Your task to perform on an android device: open sync settings in chrome Image 0: 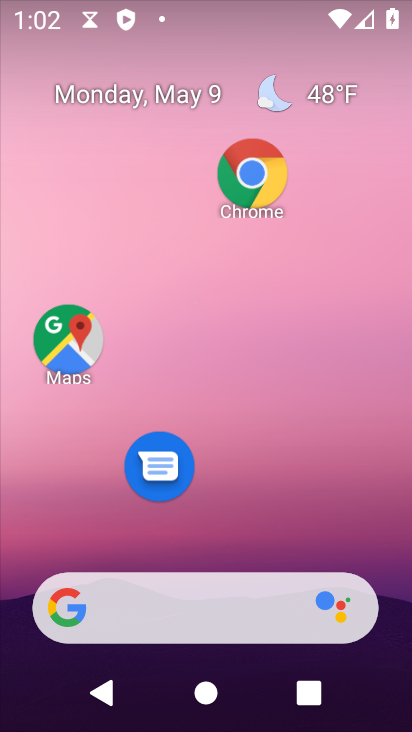
Step 0: click (247, 212)
Your task to perform on an android device: open sync settings in chrome Image 1: 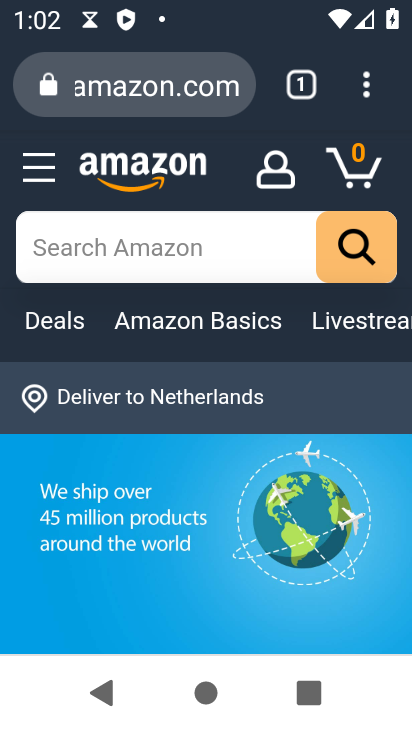
Step 1: click (360, 86)
Your task to perform on an android device: open sync settings in chrome Image 2: 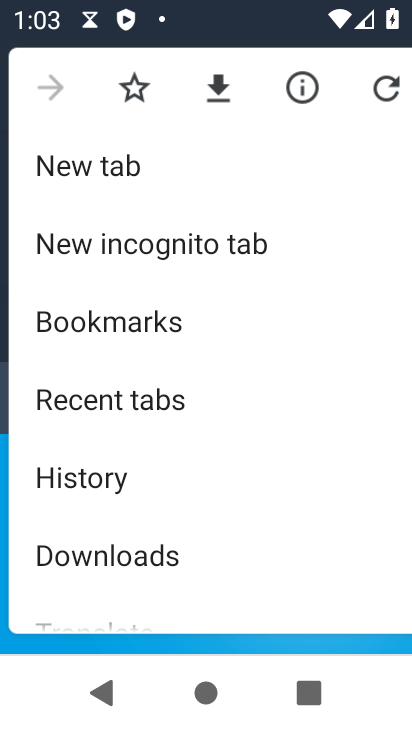
Step 2: drag from (148, 561) to (160, 300)
Your task to perform on an android device: open sync settings in chrome Image 3: 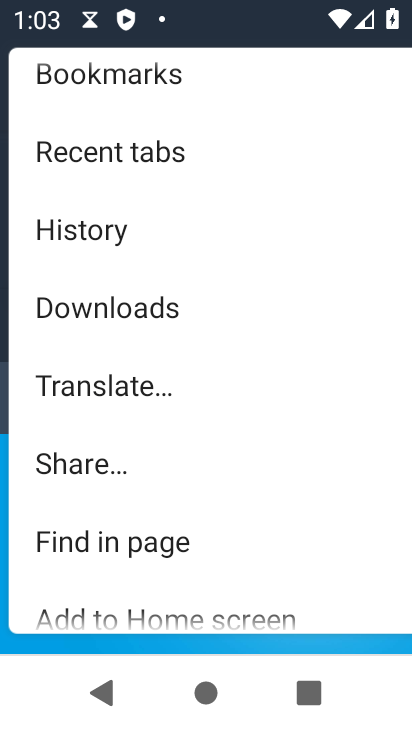
Step 3: drag from (130, 568) to (168, 280)
Your task to perform on an android device: open sync settings in chrome Image 4: 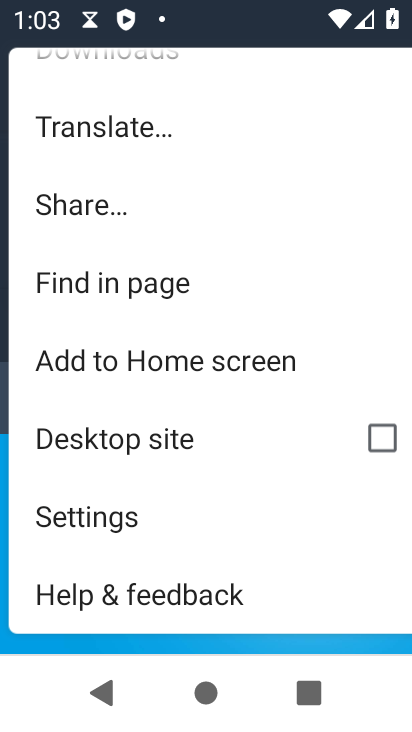
Step 4: click (96, 519)
Your task to perform on an android device: open sync settings in chrome Image 5: 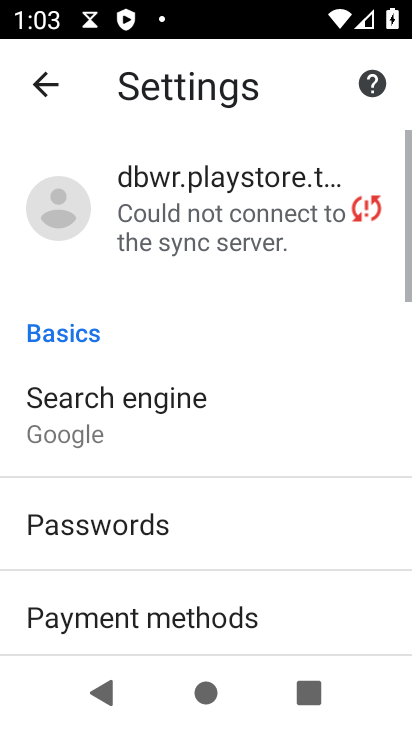
Step 5: click (158, 221)
Your task to perform on an android device: open sync settings in chrome Image 6: 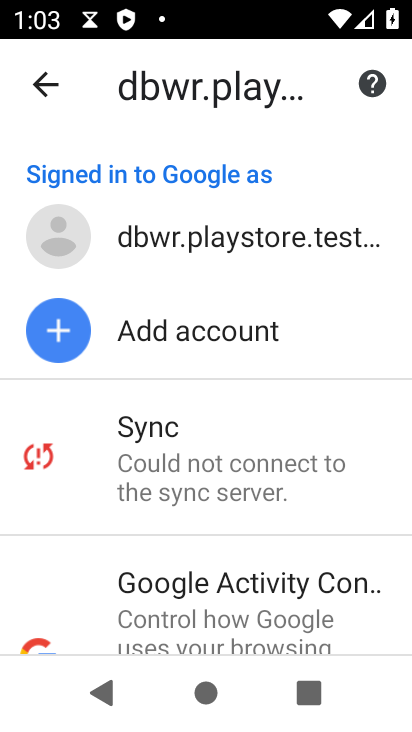
Step 6: click (156, 403)
Your task to perform on an android device: open sync settings in chrome Image 7: 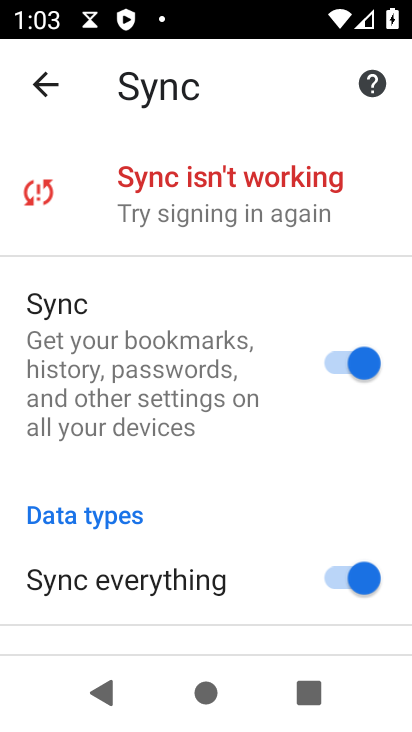
Step 7: drag from (158, 541) to (166, 239)
Your task to perform on an android device: open sync settings in chrome Image 8: 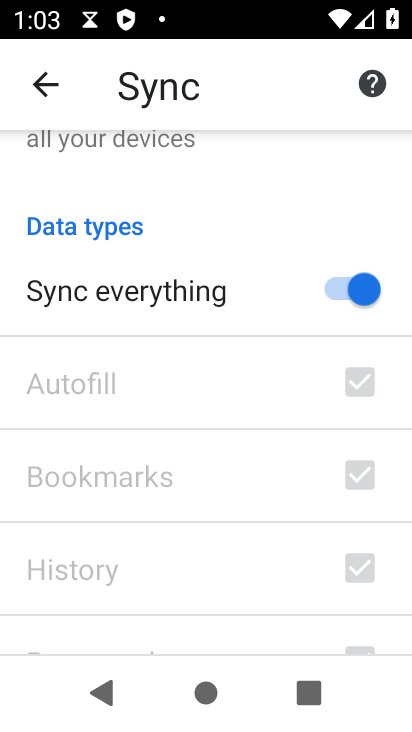
Step 8: drag from (167, 515) to (184, 248)
Your task to perform on an android device: open sync settings in chrome Image 9: 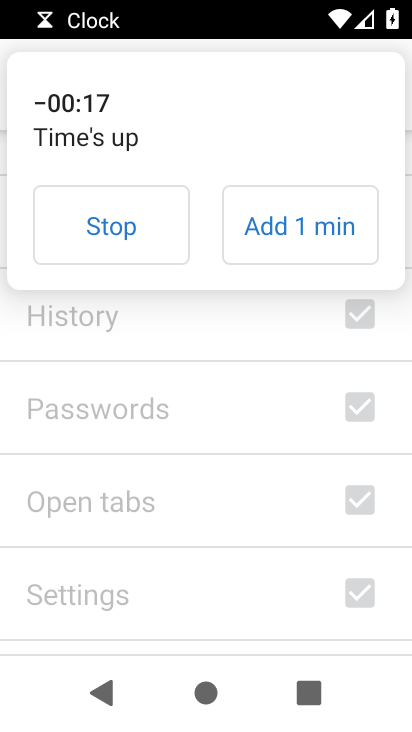
Step 9: click (109, 232)
Your task to perform on an android device: open sync settings in chrome Image 10: 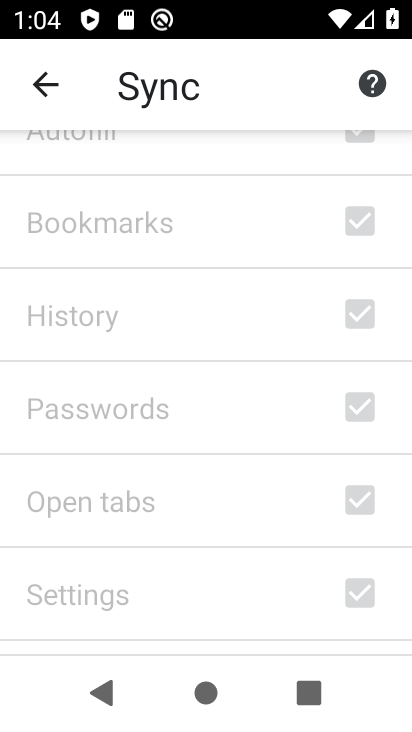
Step 10: task complete